Your task to perform on an android device: Search for seafood restaurants on Google Maps Image 0: 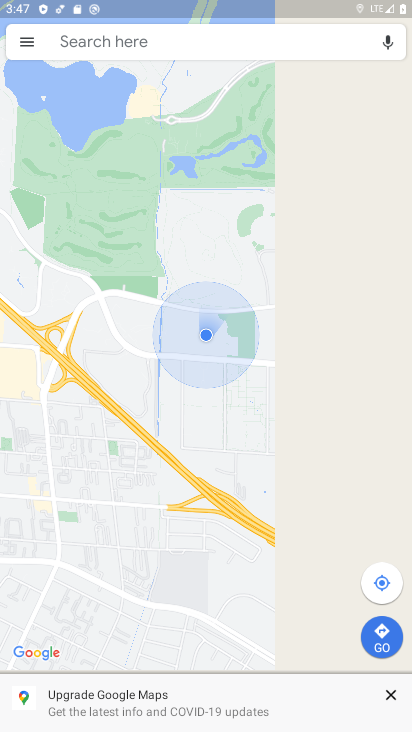
Step 0: click (135, 38)
Your task to perform on an android device: Search for seafood restaurants on Google Maps Image 1: 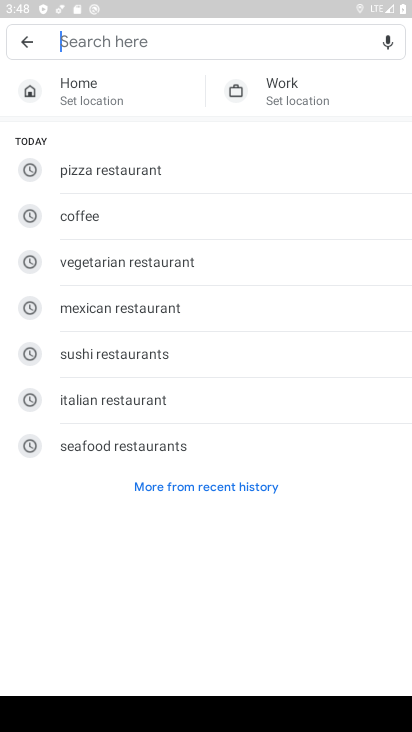
Step 1: click (94, 453)
Your task to perform on an android device: Search for seafood restaurants on Google Maps Image 2: 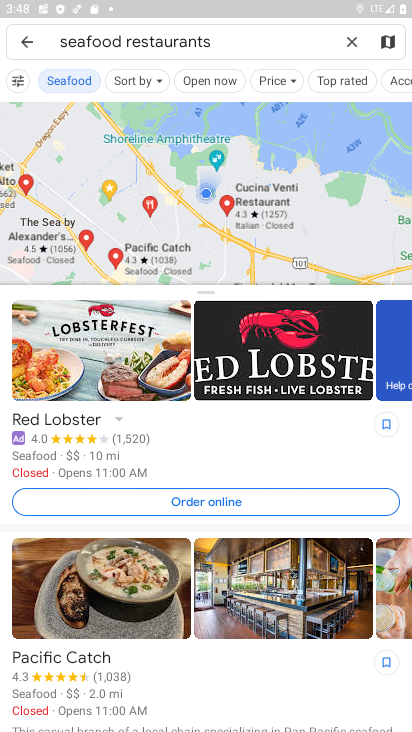
Step 2: task complete